Your task to perform on an android device: Is it going to rain today? Image 0: 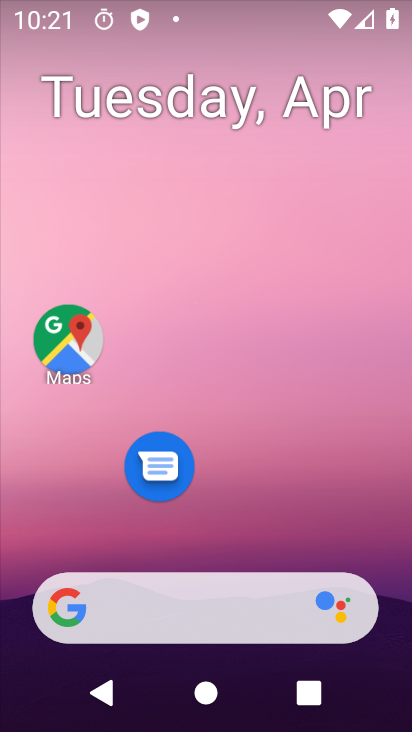
Step 0: drag from (307, 514) to (227, 44)
Your task to perform on an android device: Is it going to rain today? Image 1: 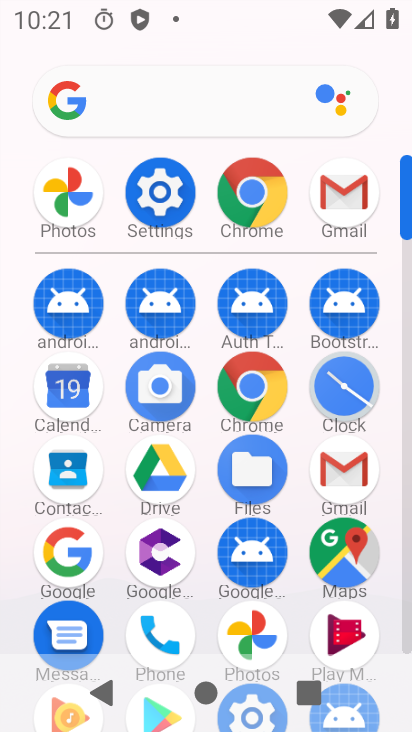
Step 1: click (215, 88)
Your task to perform on an android device: Is it going to rain today? Image 2: 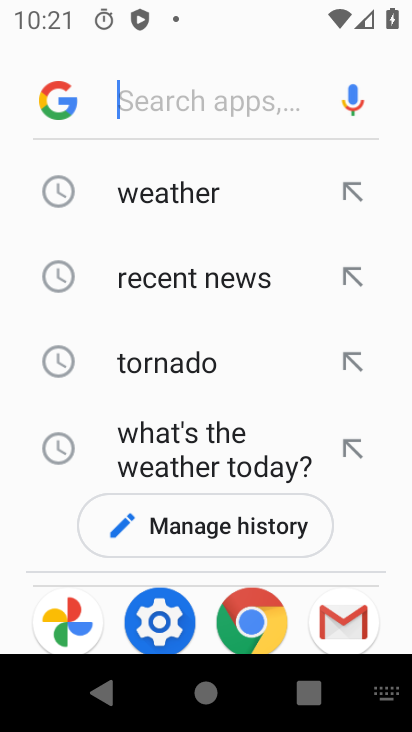
Step 2: click (218, 174)
Your task to perform on an android device: Is it going to rain today? Image 3: 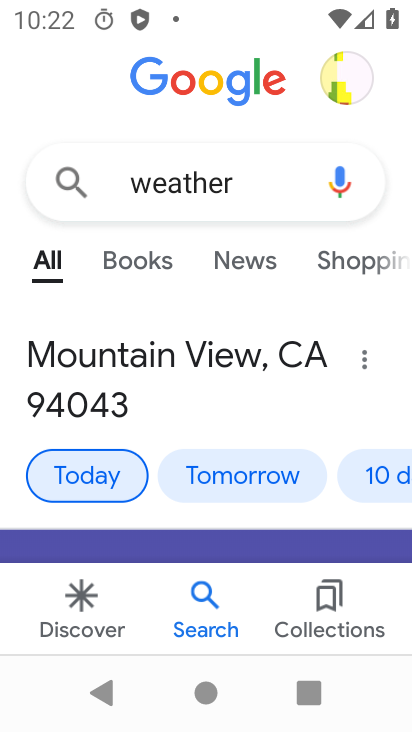
Step 3: task complete